Your task to perform on an android device: turn on the 12-hour format for clock Image 0: 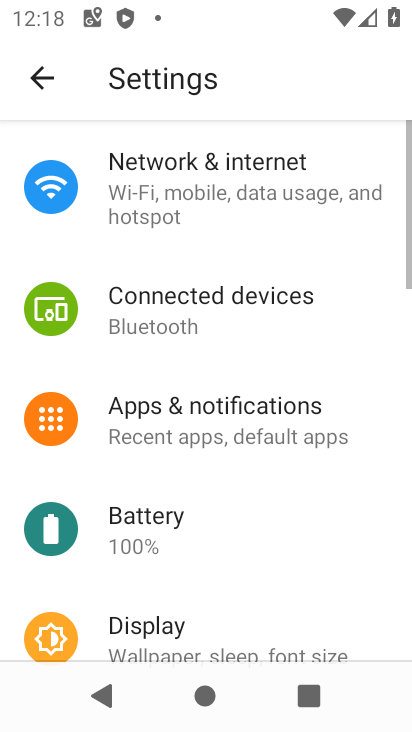
Step 0: press home button
Your task to perform on an android device: turn on the 12-hour format for clock Image 1: 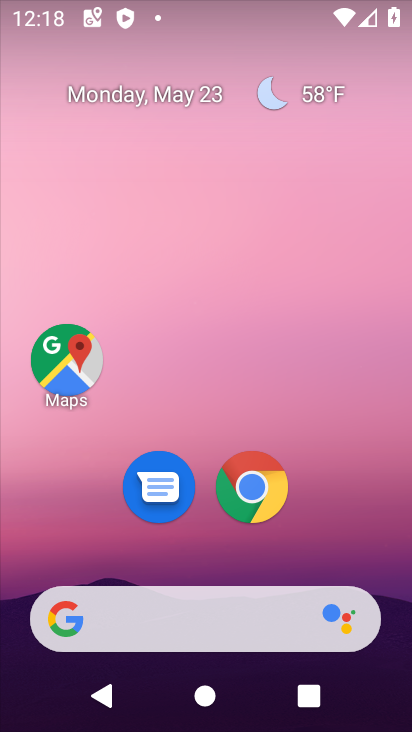
Step 1: drag from (398, 609) to (336, 72)
Your task to perform on an android device: turn on the 12-hour format for clock Image 2: 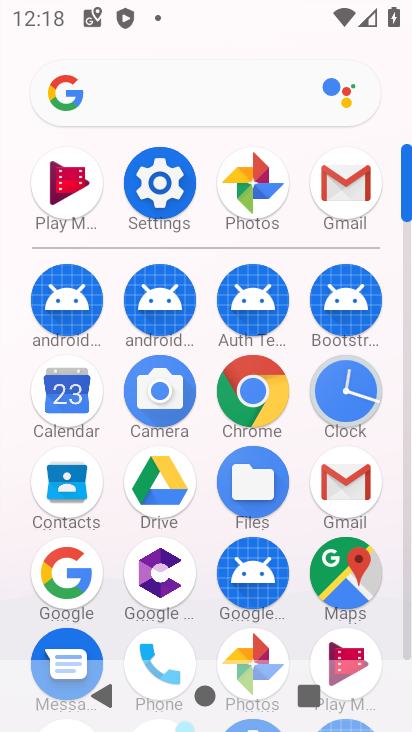
Step 2: click (347, 392)
Your task to perform on an android device: turn on the 12-hour format for clock Image 3: 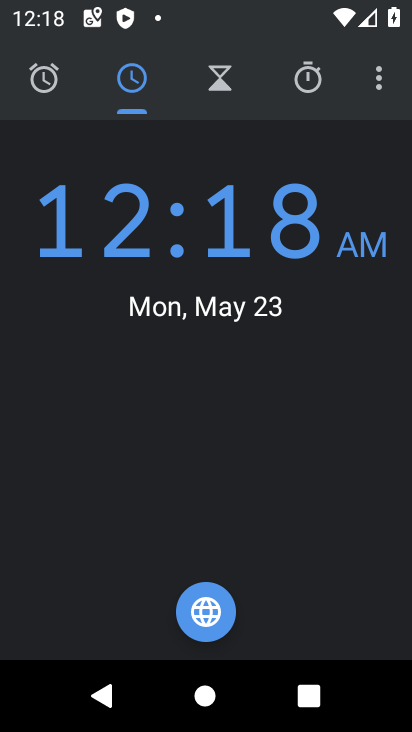
Step 3: click (376, 87)
Your task to perform on an android device: turn on the 12-hour format for clock Image 4: 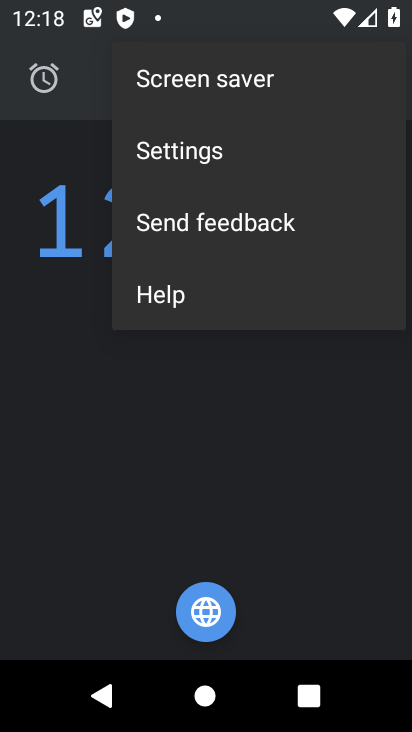
Step 4: click (170, 149)
Your task to perform on an android device: turn on the 12-hour format for clock Image 5: 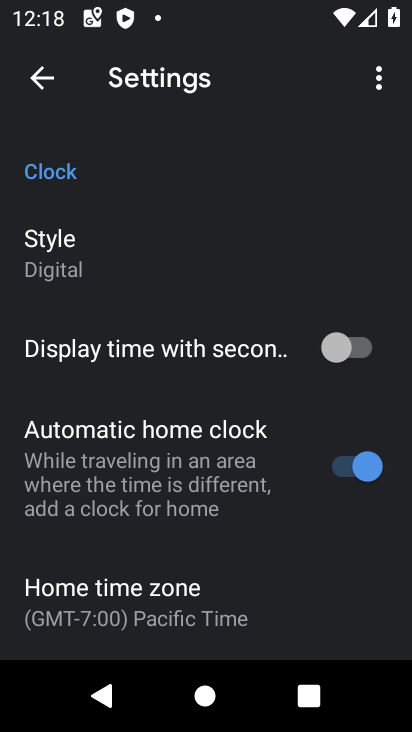
Step 5: drag from (250, 559) to (245, 162)
Your task to perform on an android device: turn on the 12-hour format for clock Image 6: 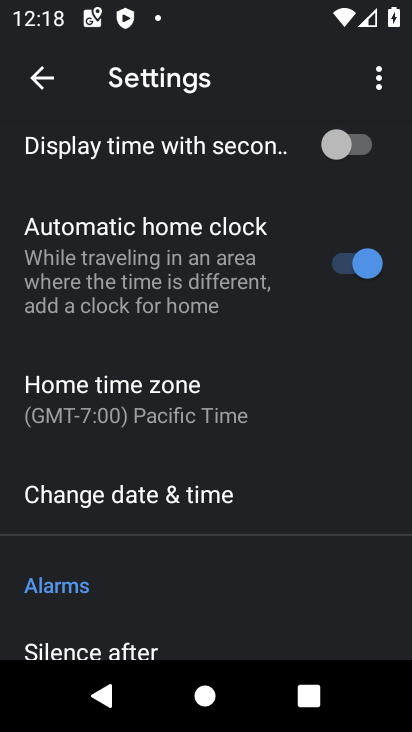
Step 6: click (134, 499)
Your task to perform on an android device: turn on the 12-hour format for clock Image 7: 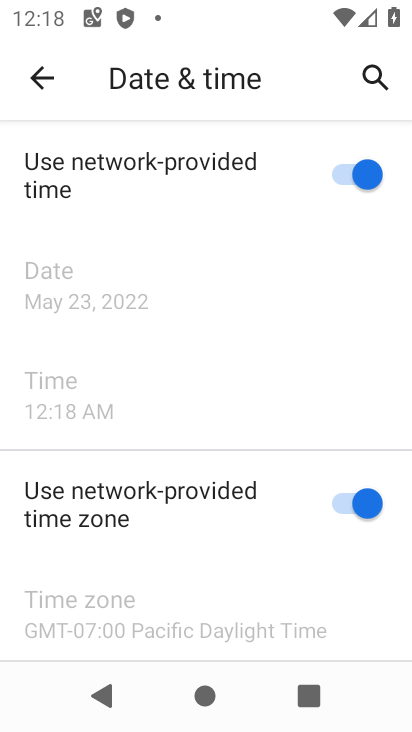
Step 7: task complete